Your task to perform on an android device: turn off notifications in google photos Image 0: 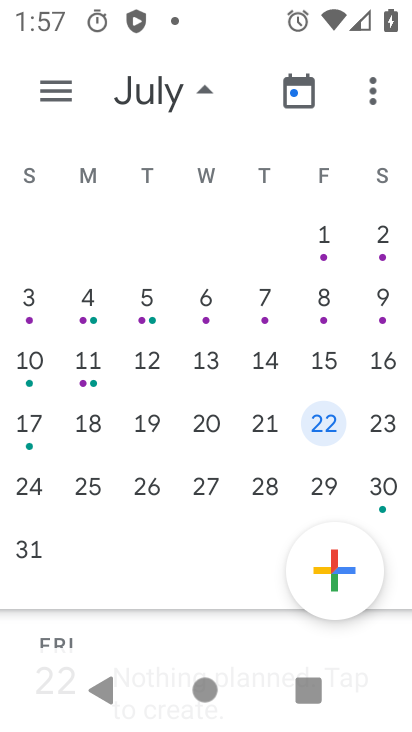
Step 0: press home button
Your task to perform on an android device: turn off notifications in google photos Image 1: 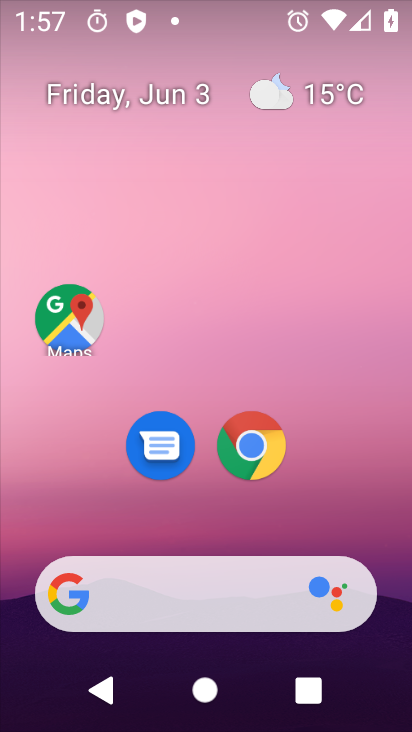
Step 1: drag from (216, 543) to (199, 163)
Your task to perform on an android device: turn off notifications in google photos Image 2: 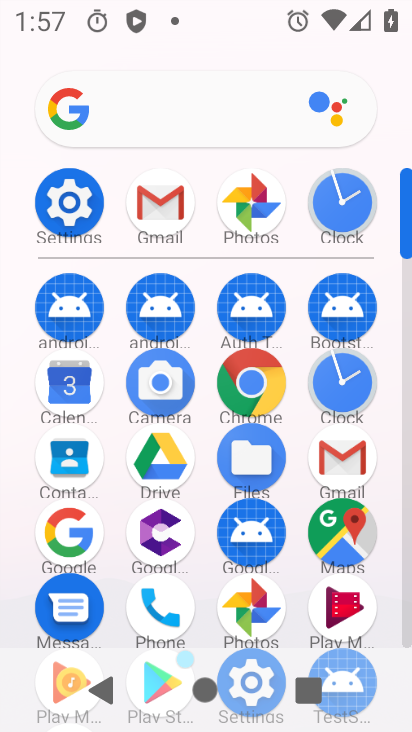
Step 2: click (271, 201)
Your task to perform on an android device: turn off notifications in google photos Image 3: 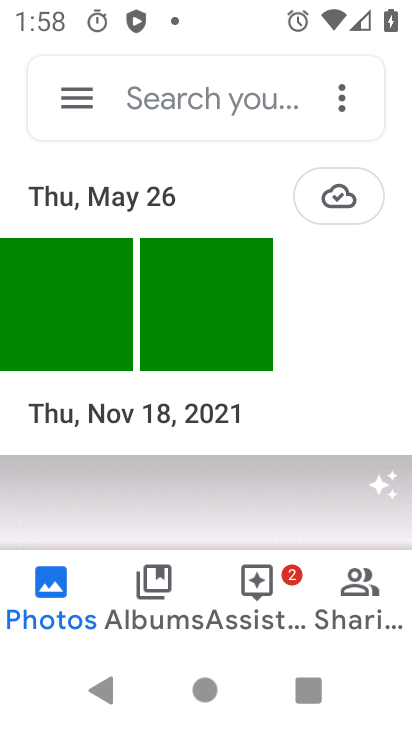
Step 3: click (98, 84)
Your task to perform on an android device: turn off notifications in google photos Image 4: 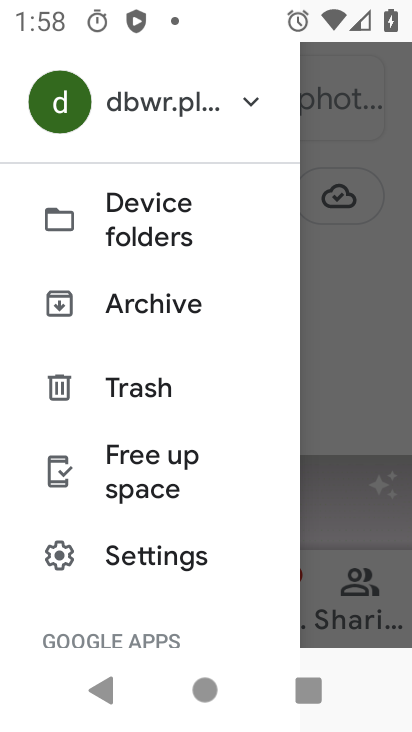
Step 4: click (189, 569)
Your task to perform on an android device: turn off notifications in google photos Image 5: 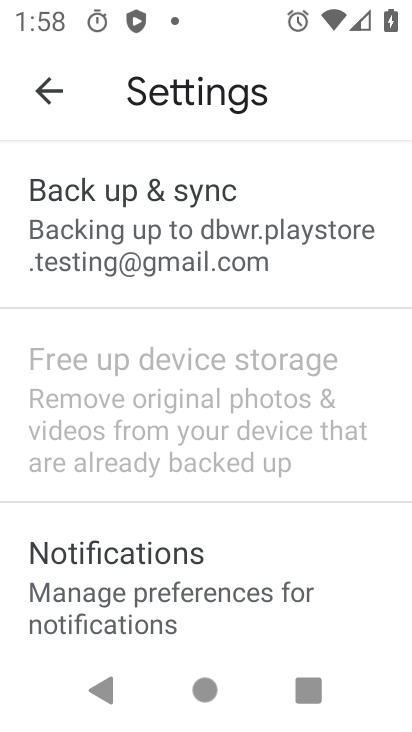
Step 5: click (174, 610)
Your task to perform on an android device: turn off notifications in google photos Image 6: 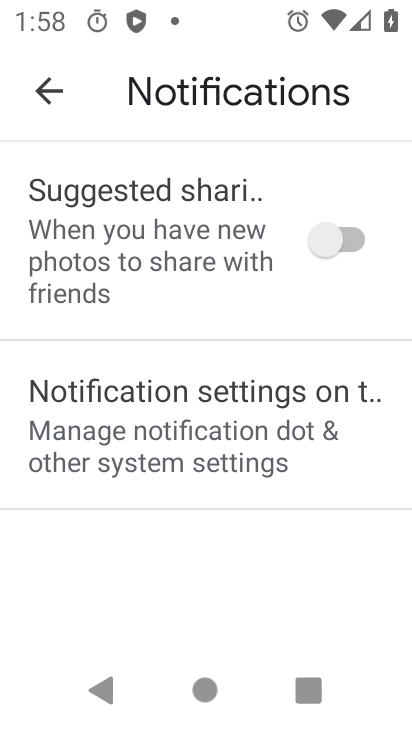
Step 6: click (223, 427)
Your task to perform on an android device: turn off notifications in google photos Image 7: 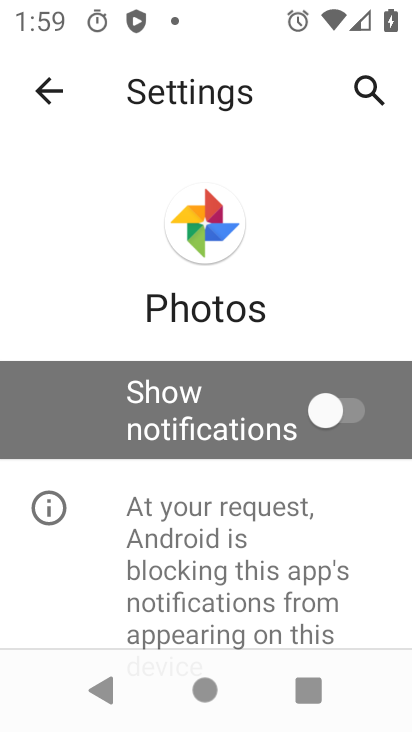
Step 7: task complete